Your task to perform on an android device: turn off wifi Image 0: 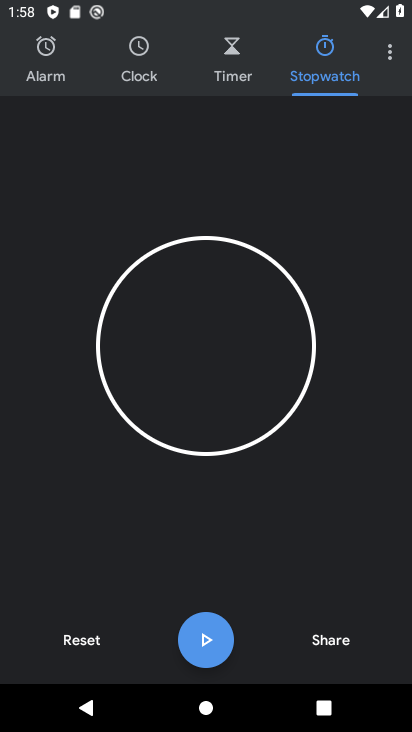
Step 0: press home button
Your task to perform on an android device: turn off wifi Image 1: 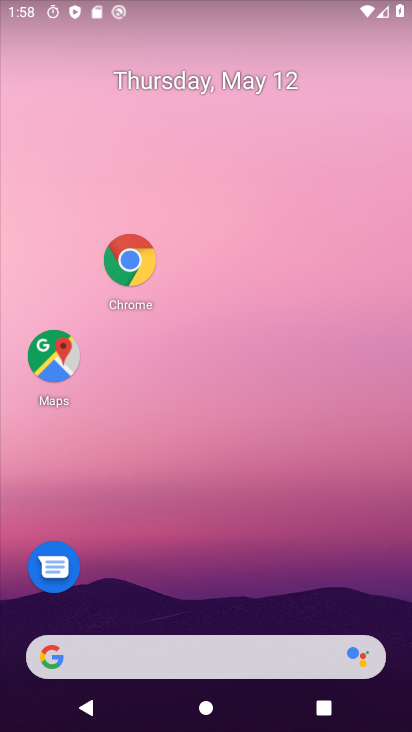
Step 1: drag from (205, 633) to (217, 217)
Your task to perform on an android device: turn off wifi Image 2: 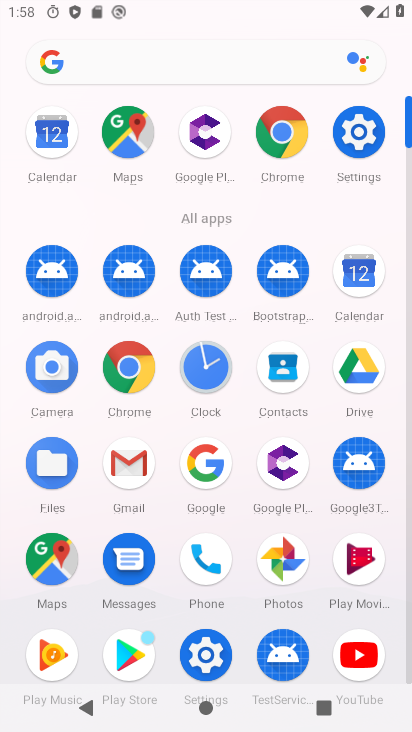
Step 2: click (366, 135)
Your task to perform on an android device: turn off wifi Image 3: 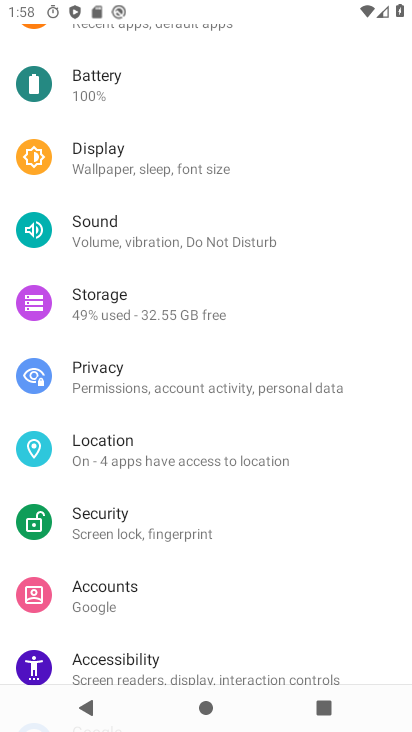
Step 3: drag from (260, 102) to (264, 515)
Your task to perform on an android device: turn off wifi Image 4: 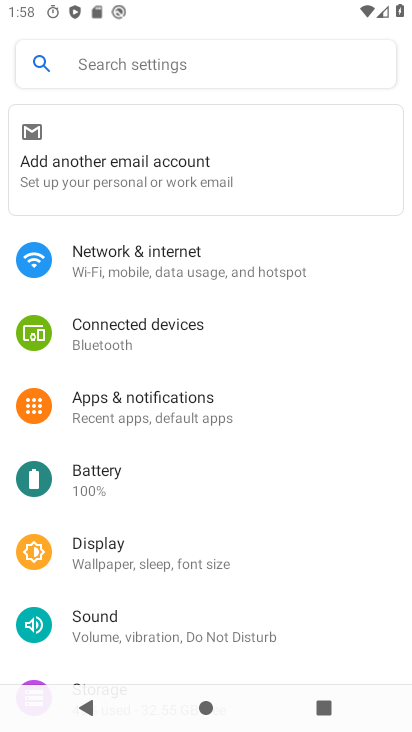
Step 4: click (148, 264)
Your task to perform on an android device: turn off wifi Image 5: 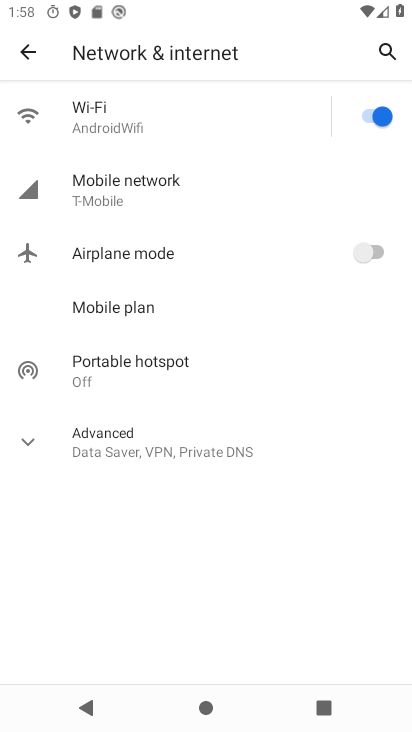
Step 5: click (369, 113)
Your task to perform on an android device: turn off wifi Image 6: 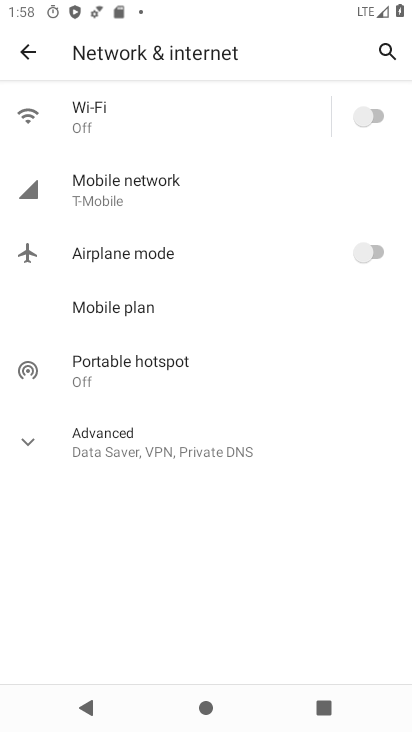
Step 6: task complete